Your task to perform on an android device: turn off location history Image 0: 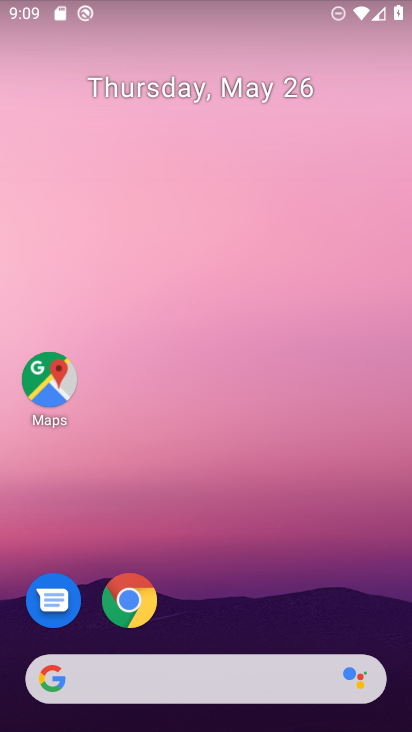
Step 0: click (281, 238)
Your task to perform on an android device: turn off location history Image 1: 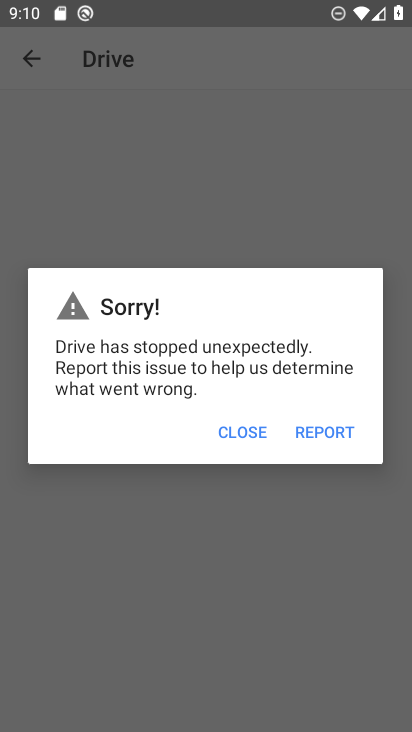
Step 1: press home button
Your task to perform on an android device: turn off location history Image 2: 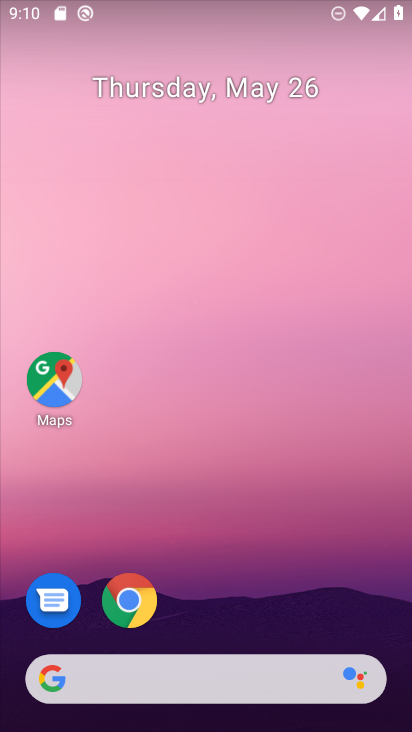
Step 2: drag from (174, 657) to (179, 186)
Your task to perform on an android device: turn off location history Image 3: 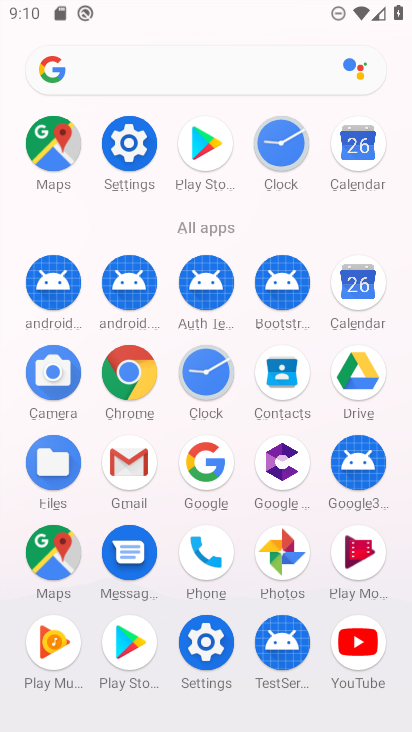
Step 3: click (123, 144)
Your task to perform on an android device: turn off location history Image 4: 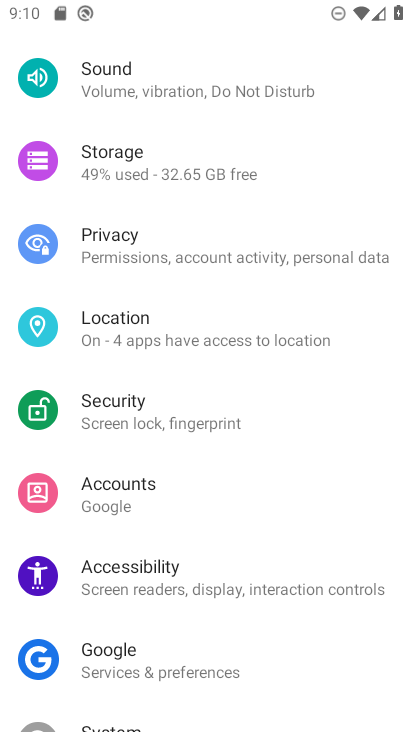
Step 4: click (142, 329)
Your task to perform on an android device: turn off location history Image 5: 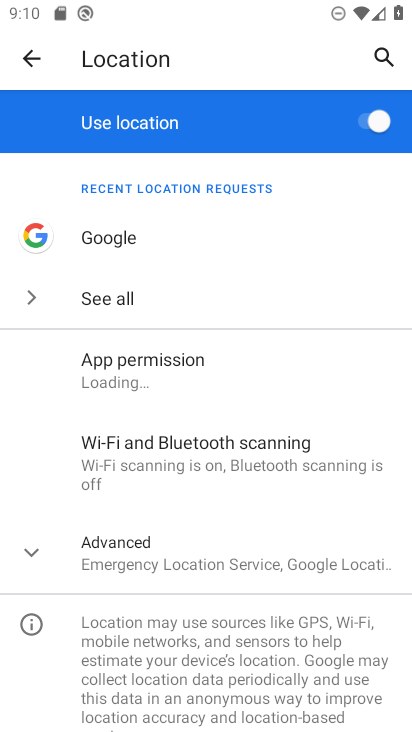
Step 5: click (162, 558)
Your task to perform on an android device: turn off location history Image 6: 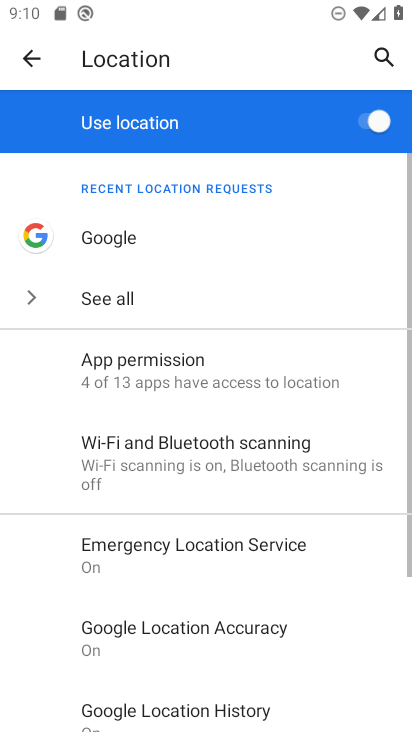
Step 6: drag from (222, 681) to (198, 310)
Your task to perform on an android device: turn off location history Image 7: 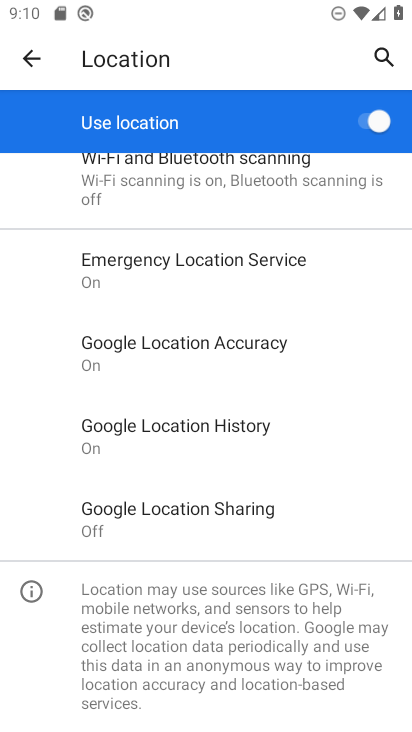
Step 7: click (165, 432)
Your task to perform on an android device: turn off location history Image 8: 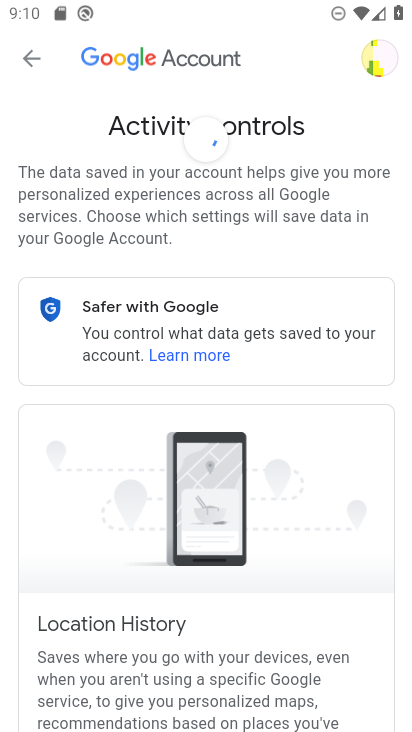
Step 8: task complete